Your task to perform on an android device: set an alarm Image 0: 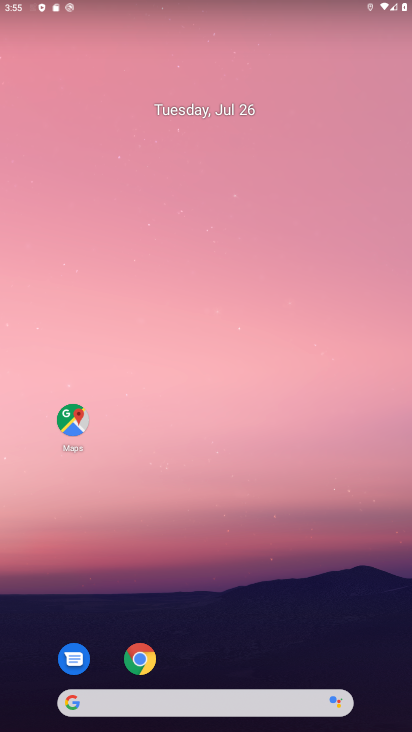
Step 0: press home button
Your task to perform on an android device: set an alarm Image 1: 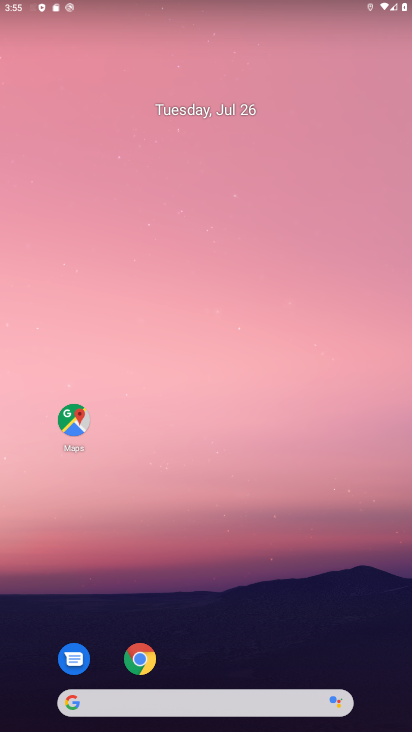
Step 1: drag from (252, 621) to (223, 117)
Your task to perform on an android device: set an alarm Image 2: 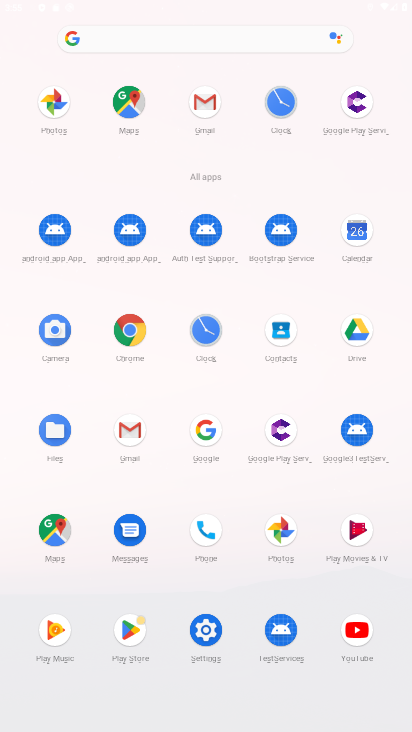
Step 2: click (273, 101)
Your task to perform on an android device: set an alarm Image 3: 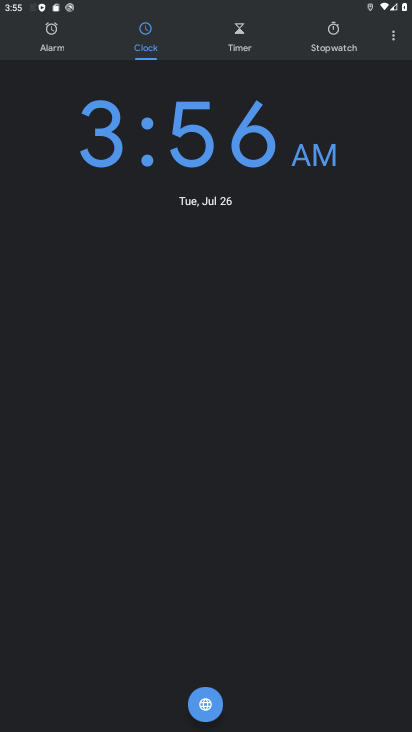
Step 3: click (46, 27)
Your task to perform on an android device: set an alarm Image 4: 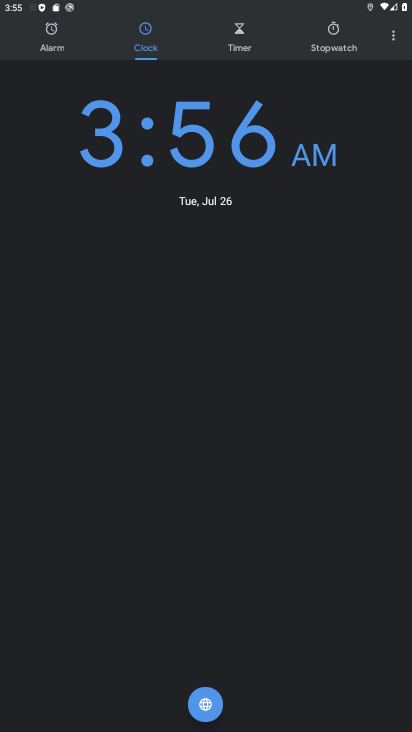
Step 4: click (56, 39)
Your task to perform on an android device: set an alarm Image 5: 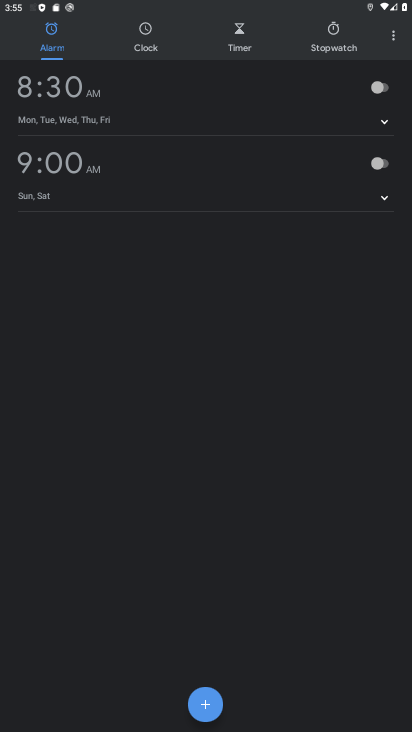
Step 5: click (381, 88)
Your task to perform on an android device: set an alarm Image 6: 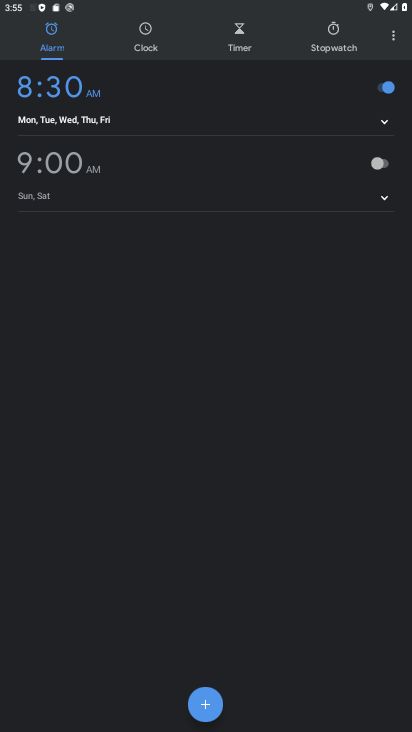
Step 6: task complete